Your task to perform on an android device: turn off wifi Image 0: 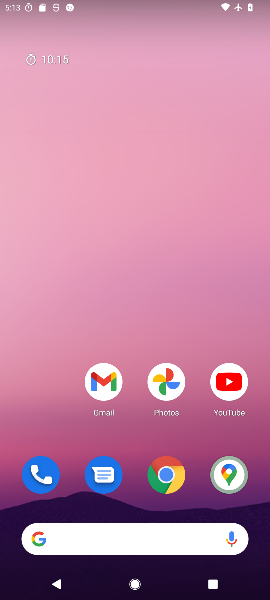
Step 0: press home button
Your task to perform on an android device: turn off wifi Image 1: 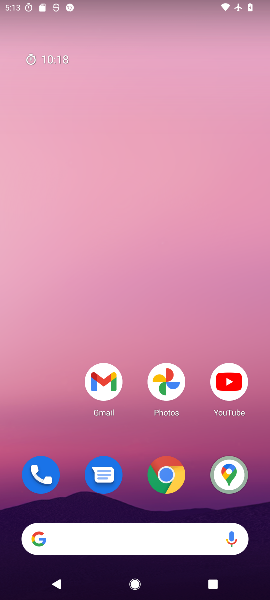
Step 1: drag from (62, 434) to (61, 161)
Your task to perform on an android device: turn off wifi Image 2: 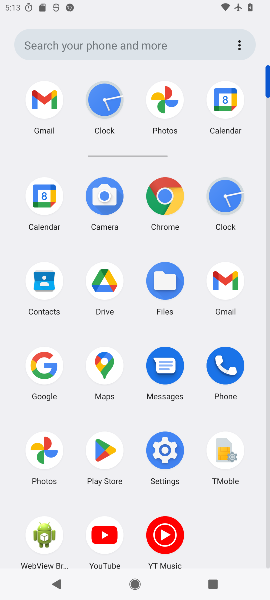
Step 2: click (162, 452)
Your task to perform on an android device: turn off wifi Image 3: 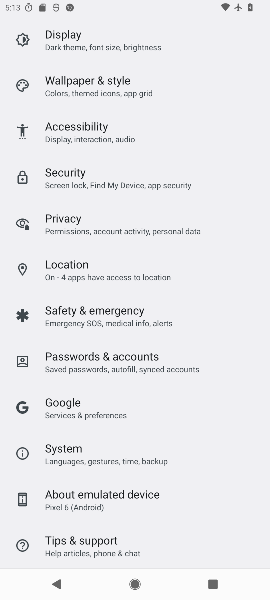
Step 3: drag from (226, 218) to (226, 289)
Your task to perform on an android device: turn off wifi Image 4: 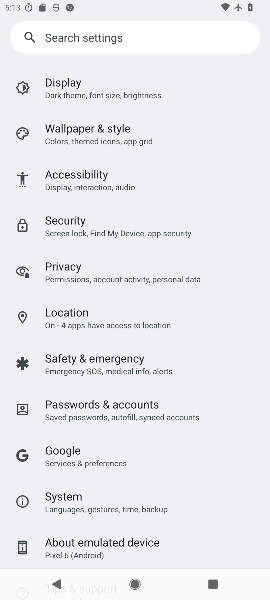
Step 4: drag from (218, 178) to (226, 298)
Your task to perform on an android device: turn off wifi Image 5: 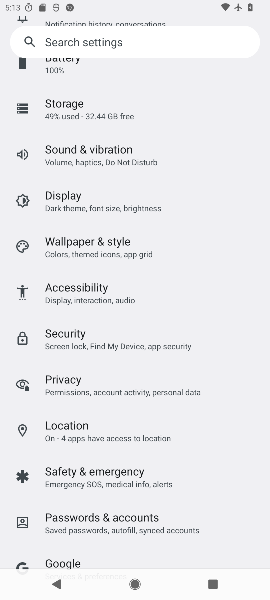
Step 5: drag from (223, 160) to (230, 287)
Your task to perform on an android device: turn off wifi Image 6: 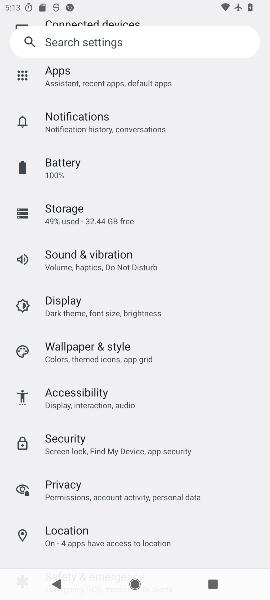
Step 6: drag from (226, 147) to (227, 270)
Your task to perform on an android device: turn off wifi Image 7: 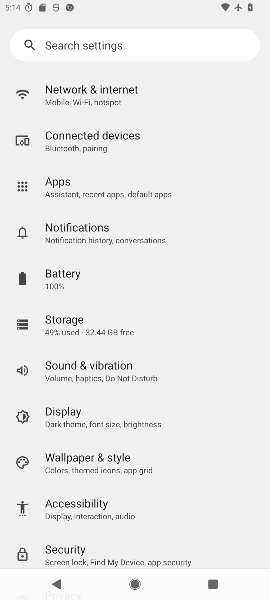
Step 7: drag from (230, 132) to (232, 302)
Your task to perform on an android device: turn off wifi Image 8: 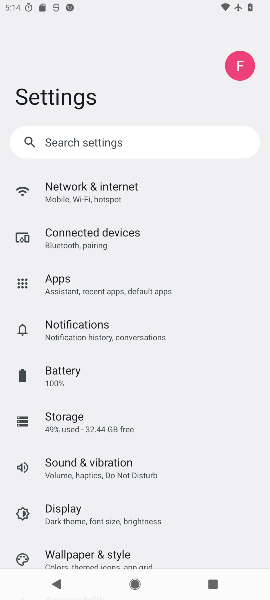
Step 8: click (132, 196)
Your task to perform on an android device: turn off wifi Image 9: 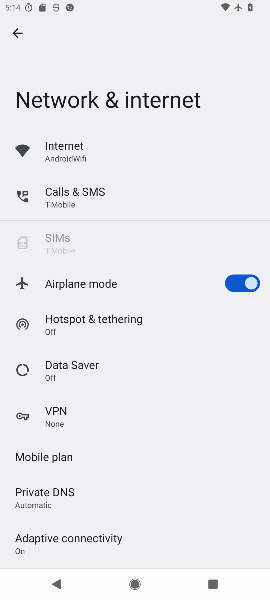
Step 9: click (65, 145)
Your task to perform on an android device: turn off wifi Image 10: 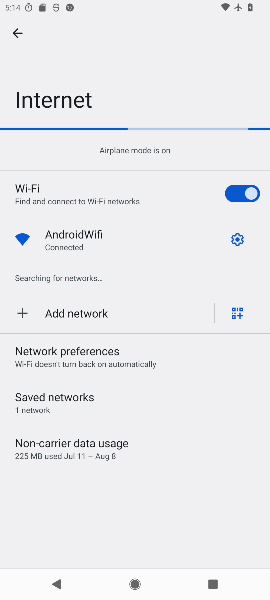
Step 10: click (248, 194)
Your task to perform on an android device: turn off wifi Image 11: 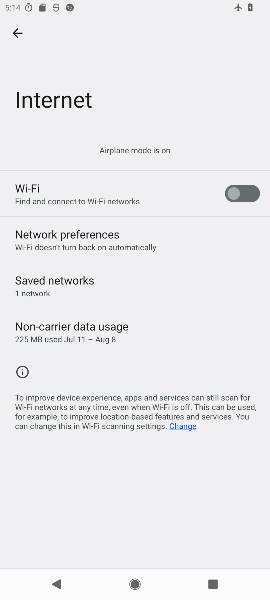
Step 11: task complete